Your task to perform on an android device: Open settings on Google Maps Image 0: 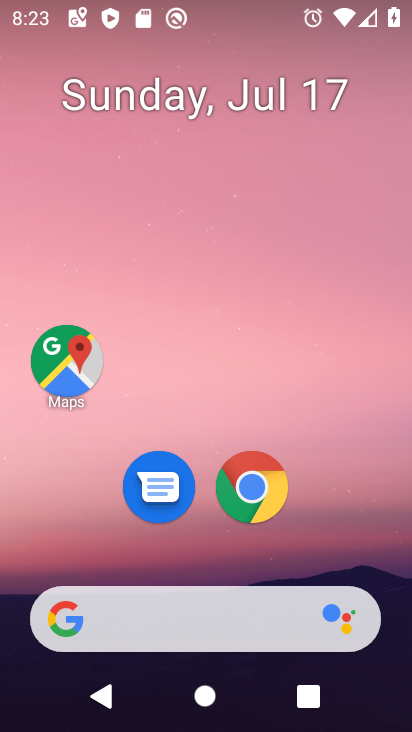
Step 0: click (48, 355)
Your task to perform on an android device: Open settings on Google Maps Image 1: 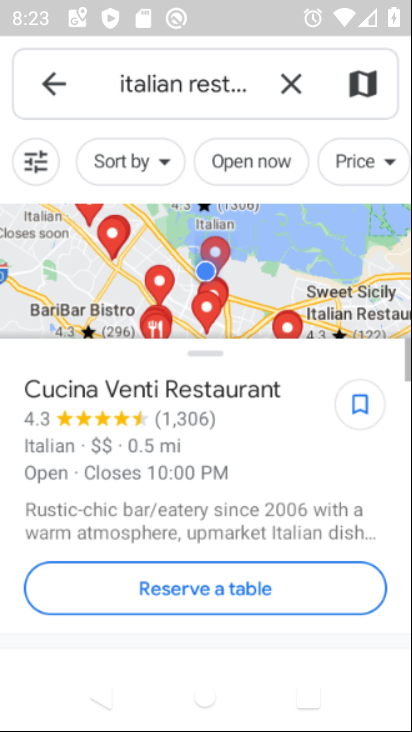
Step 1: click (60, 76)
Your task to perform on an android device: Open settings on Google Maps Image 2: 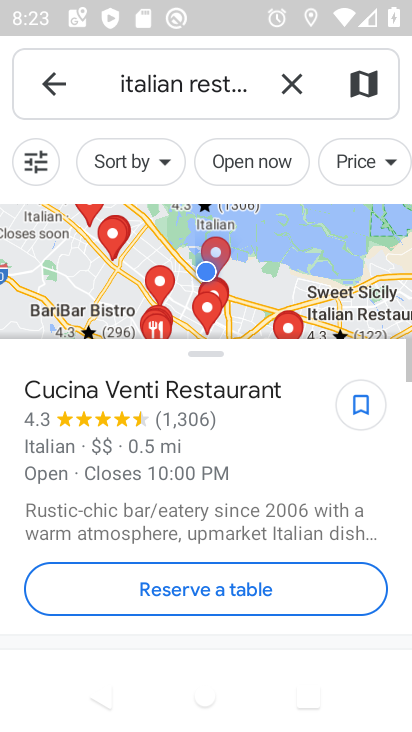
Step 2: click (55, 84)
Your task to perform on an android device: Open settings on Google Maps Image 3: 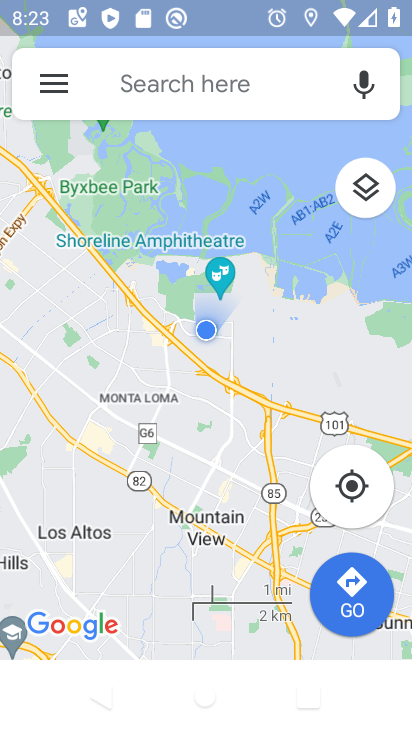
Step 3: click (54, 87)
Your task to perform on an android device: Open settings on Google Maps Image 4: 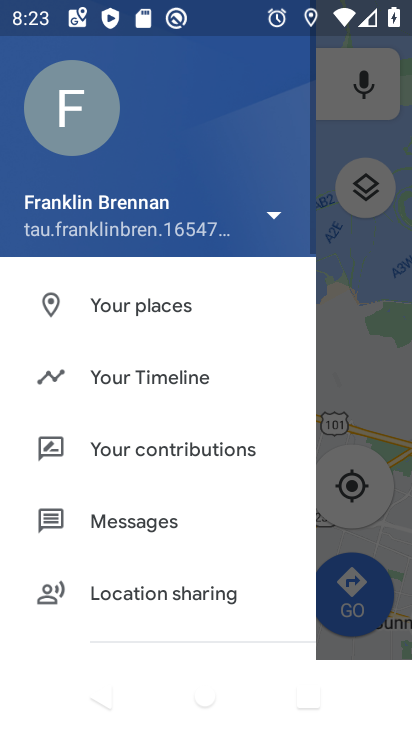
Step 4: drag from (153, 571) to (243, 11)
Your task to perform on an android device: Open settings on Google Maps Image 5: 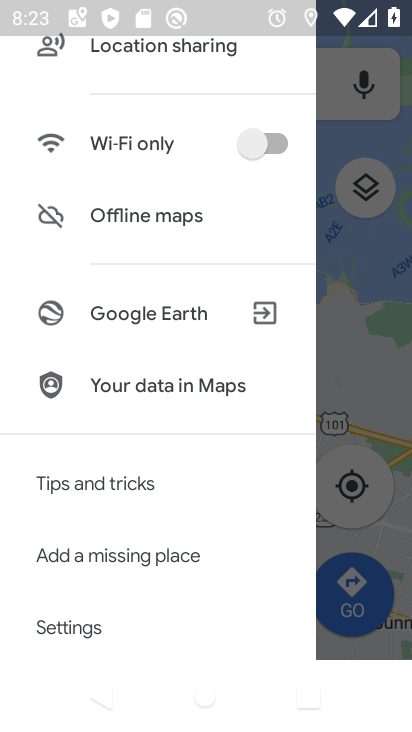
Step 5: click (71, 623)
Your task to perform on an android device: Open settings on Google Maps Image 6: 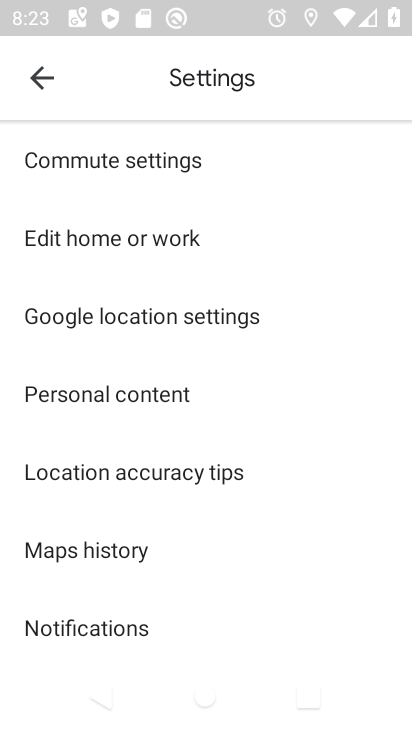
Step 6: task complete